Your task to perform on an android device: What's the weather going to be tomorrow? Image 0: 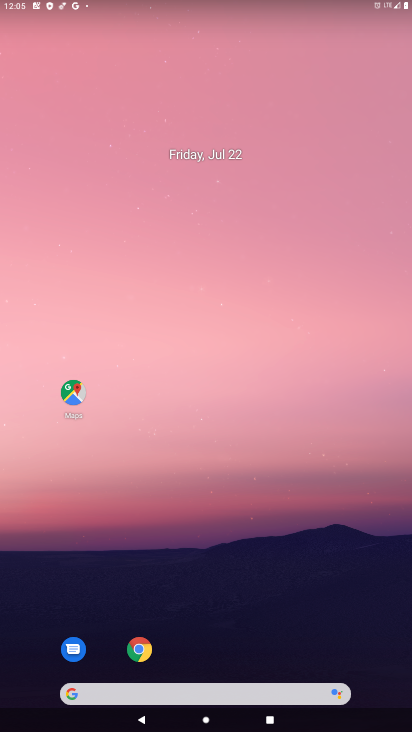
Step 0: drag from (312, 589) to (249, 65)
Your task to perform on an android device: What's the weather going to be tomorrow? Image 1: 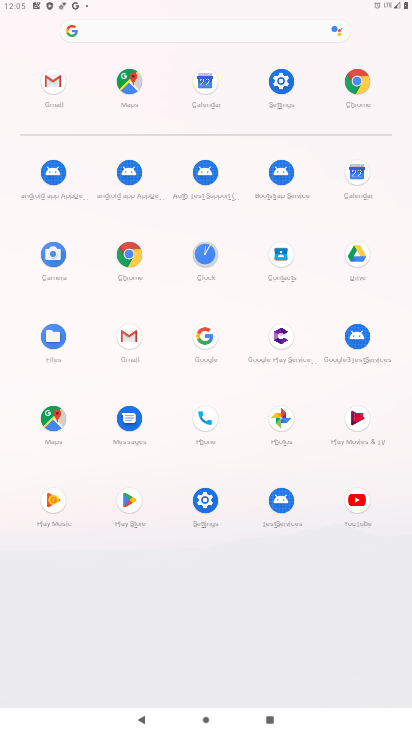
Step 1: click (357, 76)
Your task to perform on an android device: What's the weather going to be tomorrow? Image 2: 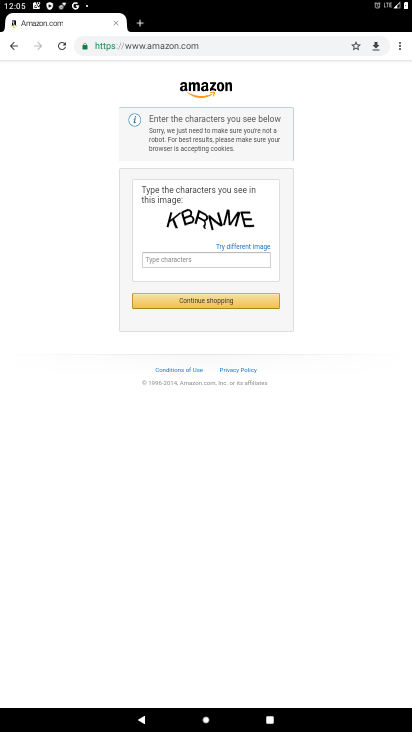
Step 2: click (251, 48)
Your task to perform on an android device: What's the weather going to be tomorrow? Image 3: 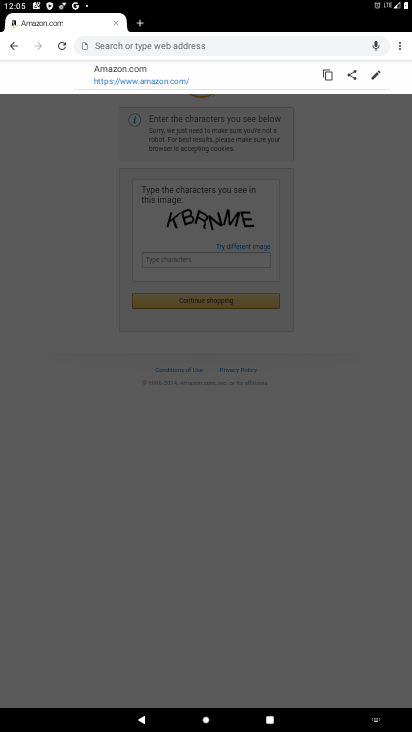
Step 3: click (371, 337)
Your task to perform on an android device: What's the weather going to be tomorrow? Image 4: 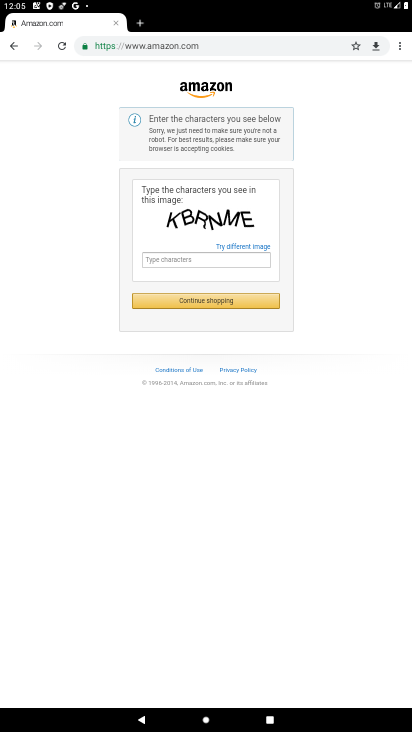
Step 4: type "weather"
Your task to perform on an android device: What's the weather going to be tomorrow? Image 5: 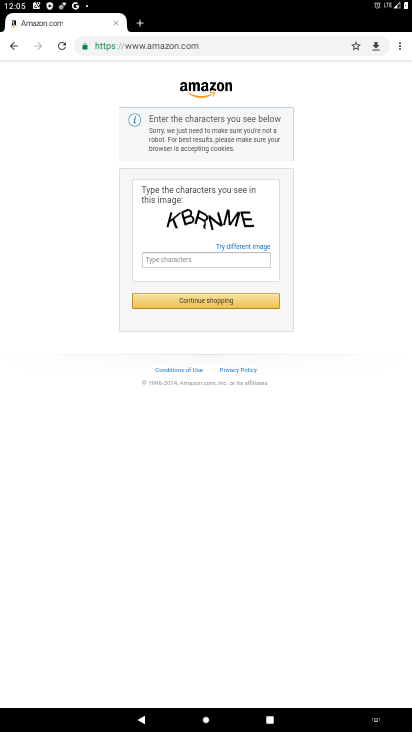
Step 5: click (294, 44)
Your task to perform on an android device: What's the weather going to be tomorrow? Image 6: 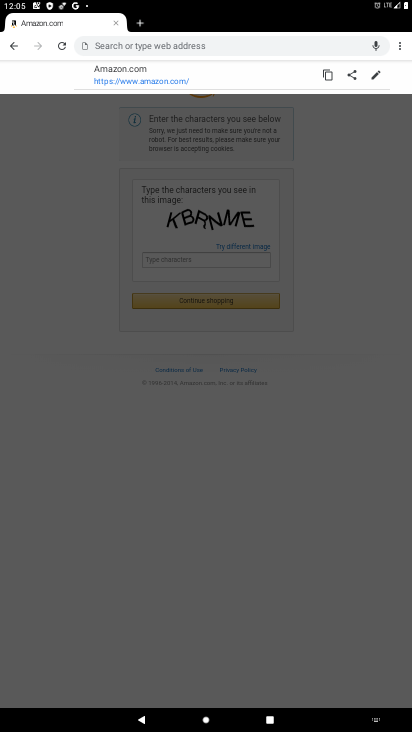
Step 6: type "weather"
Your task to perform on an android device: What's the weather going to be tomorrow? Image 7: 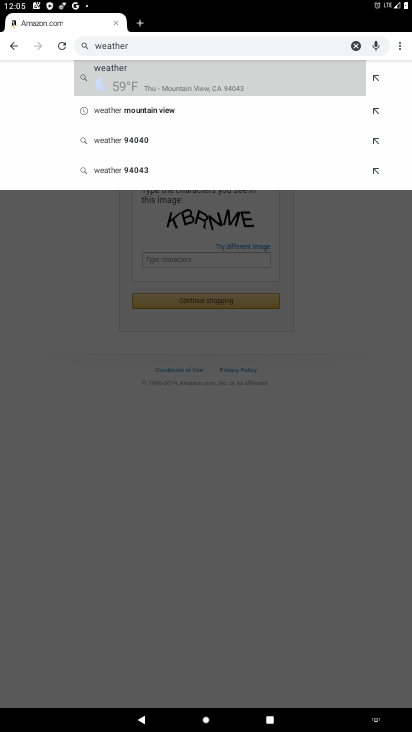
Step 7: click (114, 82)
Your task to perform on an android device: What's the weather going to be tomorrow? Image 8: 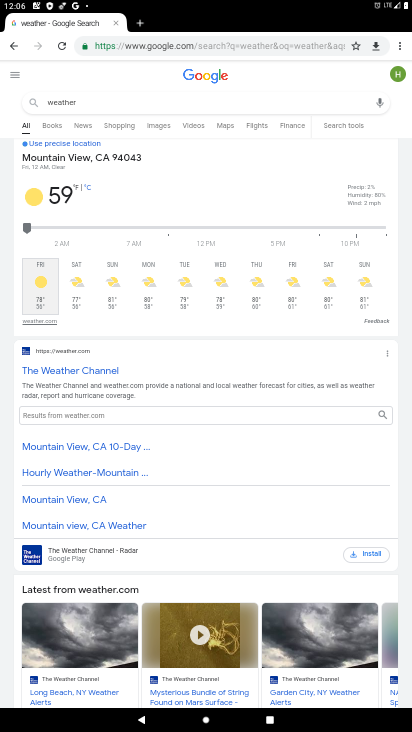
Step 8: click (72, 285)
Your task to perform on an android device: What's the weather going to be tomorrow? Image 9: 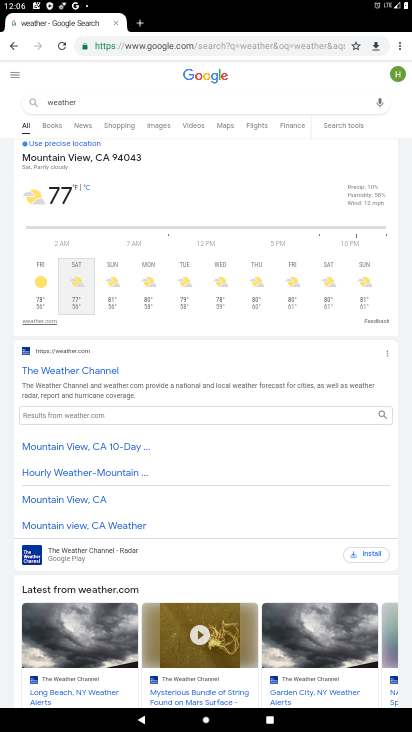
Step 9: task complete